Your task to perform on an android device: Do I have any events this weekend? Image 0: 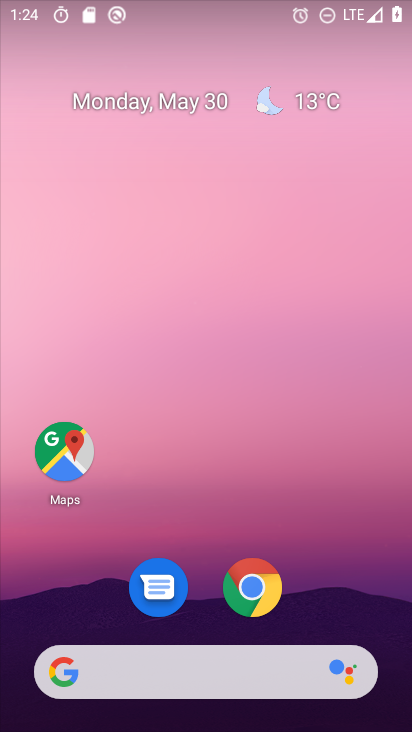
Step 0: drag from (352, 468) to (331, 9)
Your task to perform on an android device: Do I have any events this weekend? Image 1: 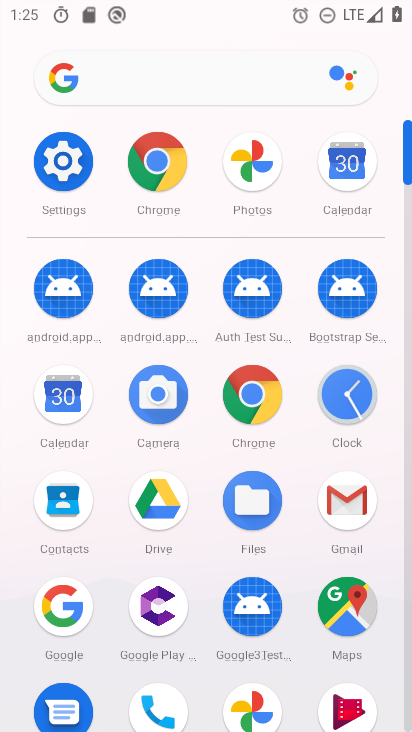
Step 1: click (61, 383)
Your task to perform on an android device: Do I have any events this weekend? Image 2: 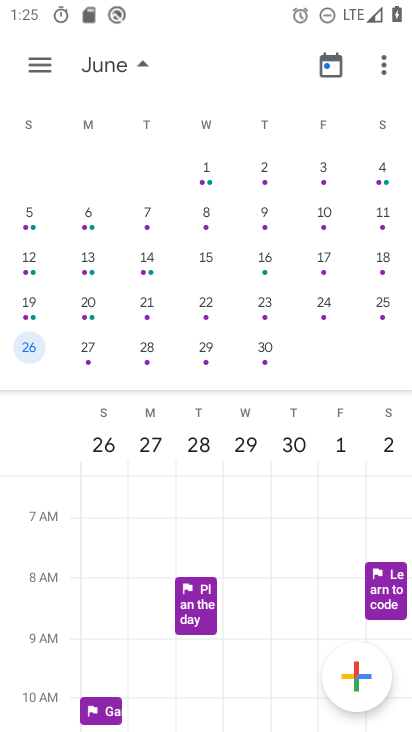
Step 2: drag from (74, 300) to (407, 313)
Your task to perform on an android device: Do I have any events this weekend? Image 3: 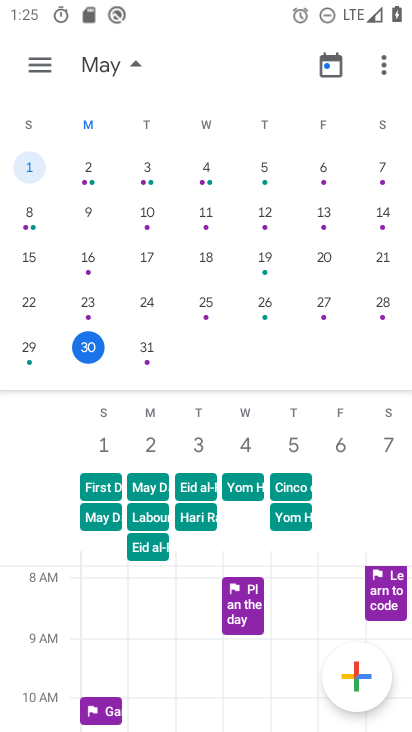
Step 3: click (50, 63)
Your task to perform on an android device: Do I have any events this weekend? Image 4: 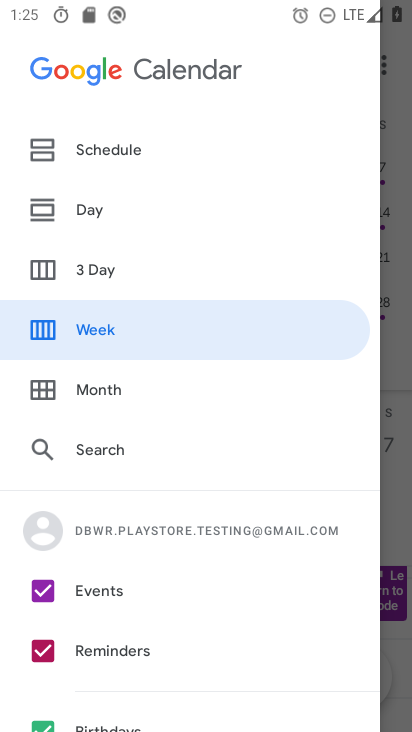
Step 4: click (110, 318)
Your task to perform on an android device: Do I have any events this weekend? Image 5: 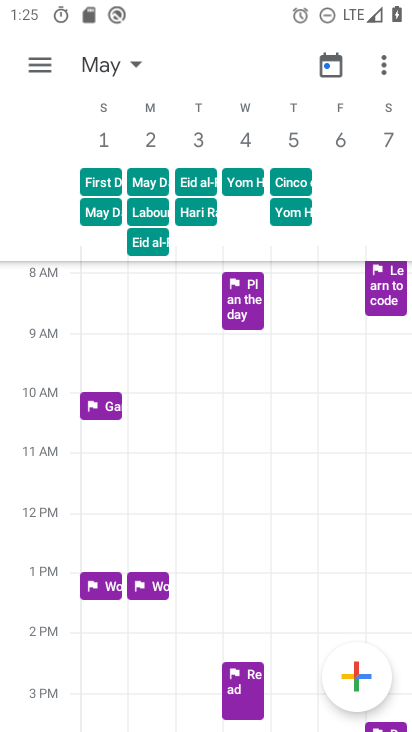
Step 5: drag from (127, 171) to (382, 149)
Your task to perform on an android device: Do I have any events this weekend? Image 6: 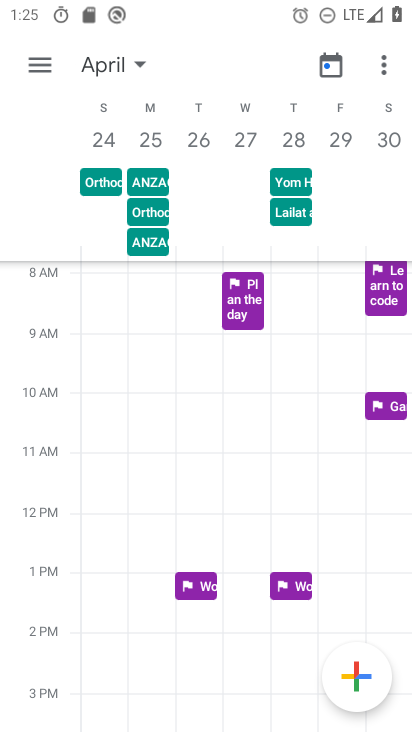
Step 6: drag from (346, 166) to (117, 143)
Your task to perform on an android device: Do I have any events this weekend? Image 7: 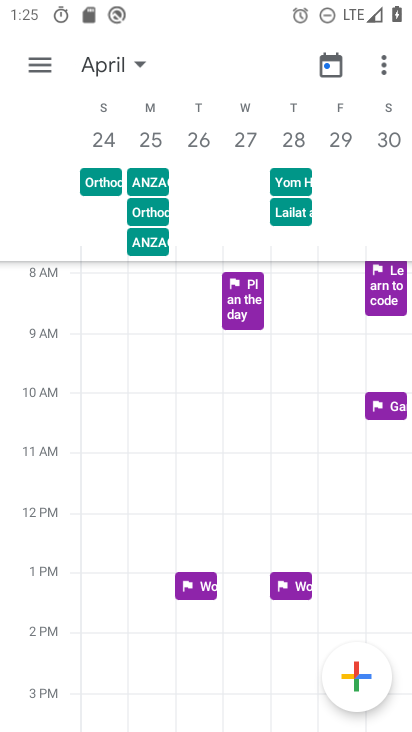
Step 7: click (116, 57)
Your task to perform on an android device: Do I have any events this weekend? Image 8: 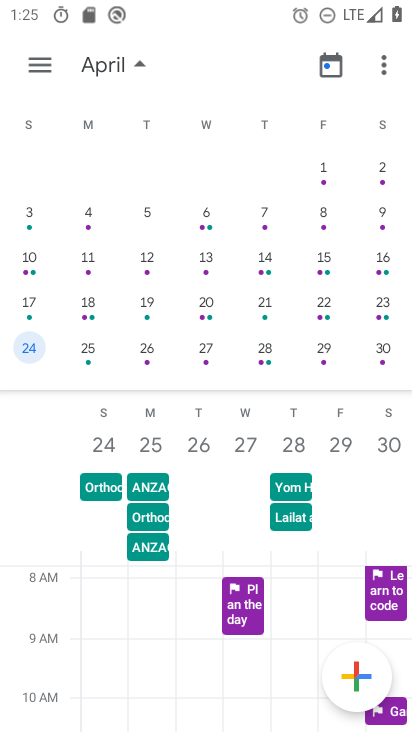
Step 8: drag from (326, 264) to (32, 281)
Your task to perform on an android device: Do I have any events this weekend? Image 9: 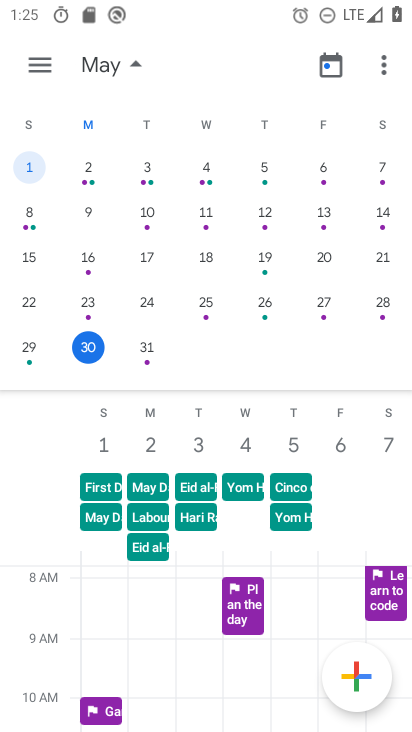
Step 9: click (43, 345)
Your task to perform on an android device: Do I have any events this weekend? Image 10: 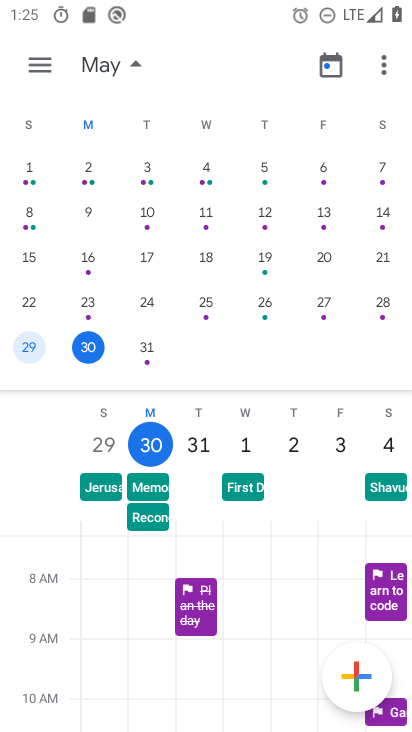
Step 10: task complete